Your task to perform on an android device: change the clock display to analog Image 0: 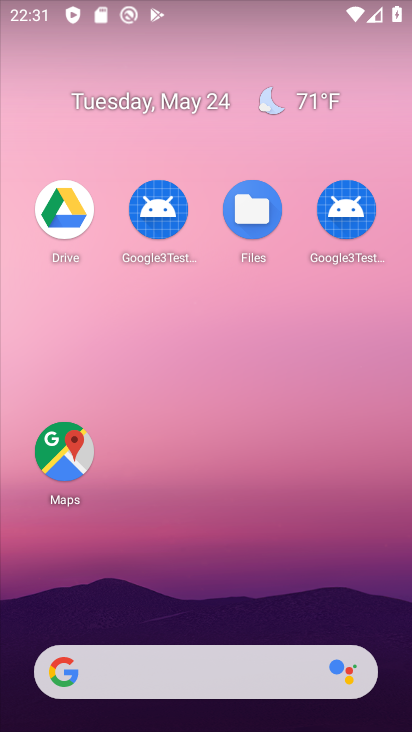
Step 0: drag from (174, 616) to (192, 5)
Your task to perform on an android device: change the clock display to analog Image 1: 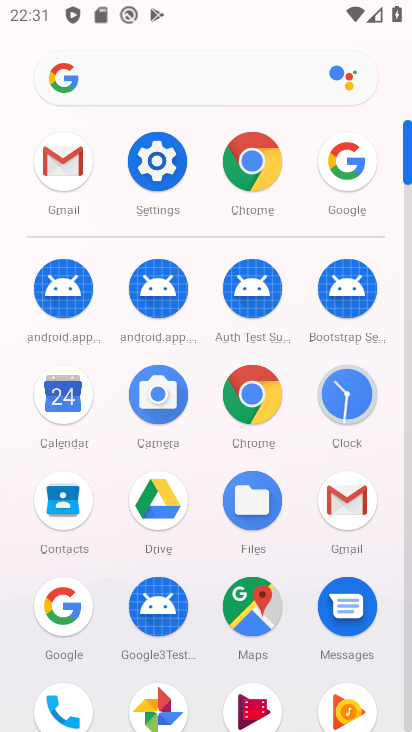
Step 1: click (356, 391)
Your task to perform on an android device: change the clock display to analog Image 2: 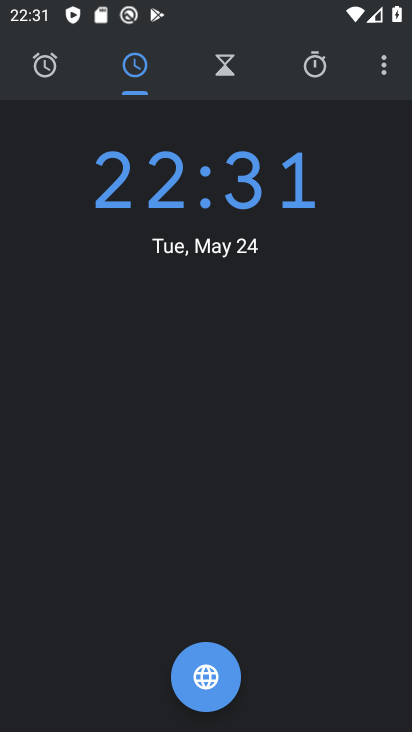
Step 2: click (382, 54)
Your task to perform on an android device: change the clock display to analog Image 3: 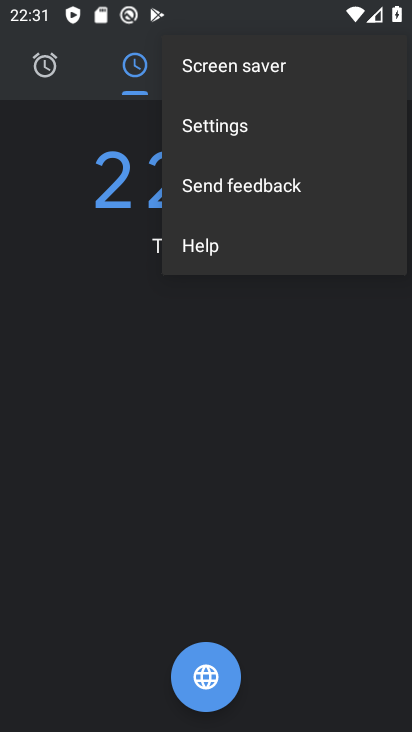
Step 3: click (206, 113)
Your task to perform on an android device: change the clock display to analog Image 4: 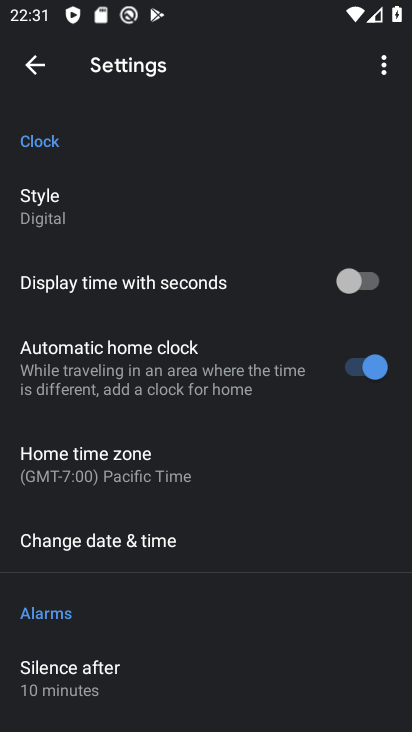
Step 4: click (51, 218)
Your task to perform on an android device: change the clock display to analog Image 5: 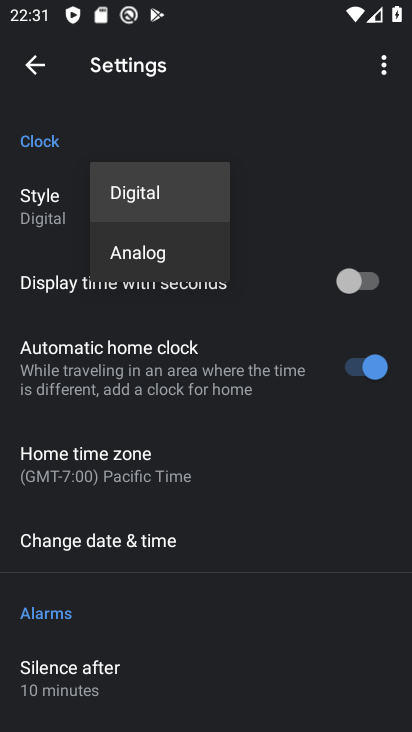
Step 5: click (126, 253)
Your task to perform on an android device: change the clock display to analog Image 6: 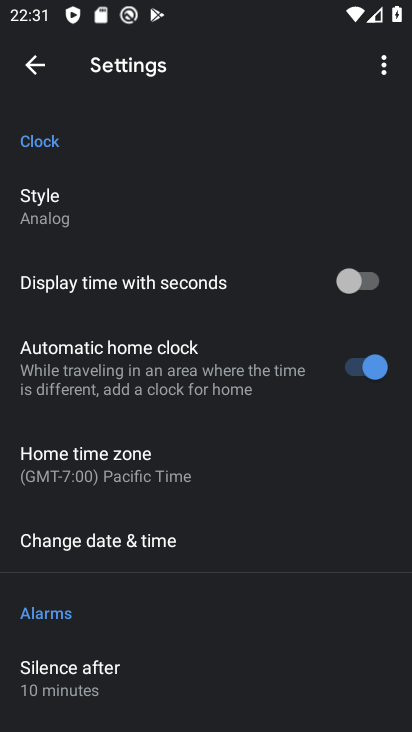
Step 6: task complete